Your task to perform on an android device: change the clock display to digital Image 0: 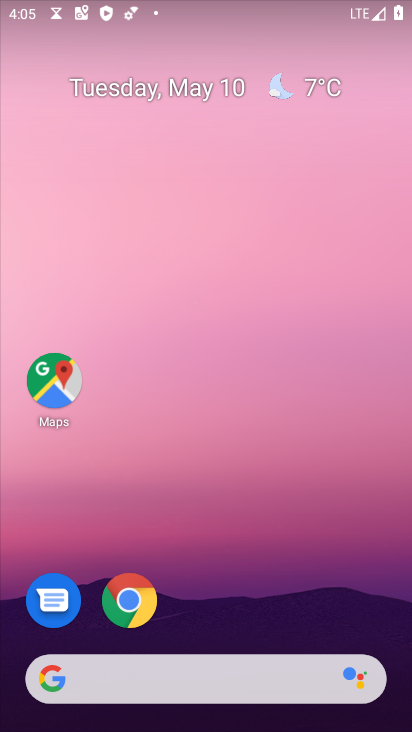
Step 0: drag from (207, 587) to (229, 248)
Your task to perform on an android device: change the clock display to digital Image 1: 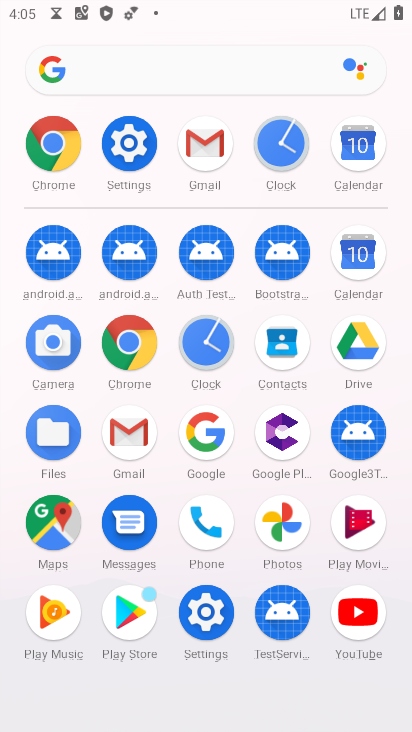
Step 1: click (206, 346)
Your task to perform on an android device: change the clock display to digital Image 2: 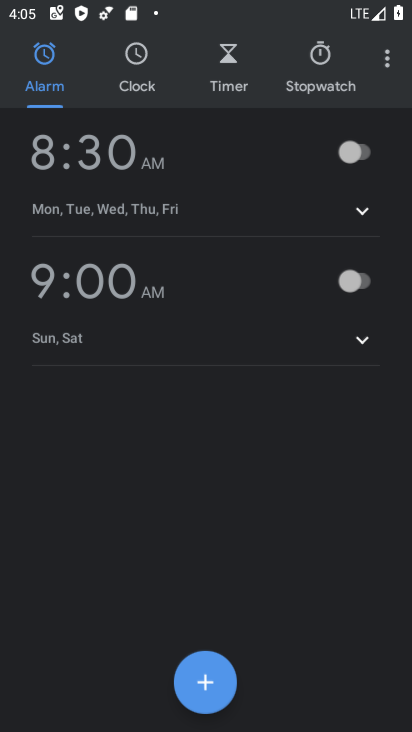
Step 2: click (130, 90)
Your task to perform on an android device: change the clock display to digital Image 3: 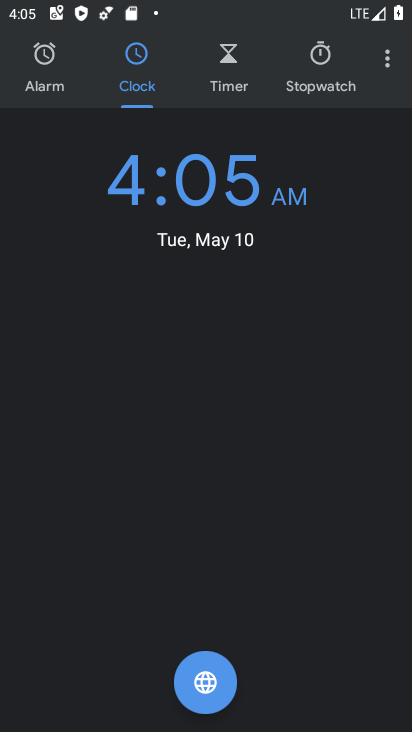
Step 3: click (376, 52)
Your task to perform on an android device: change the clock display to digital Image 4: 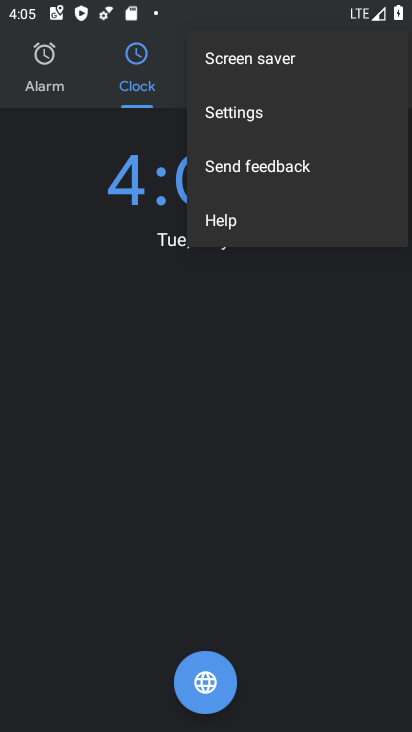
Step 4: click (246, 108)
Your task to perform on an android device: change the clock display to digital Image 5: 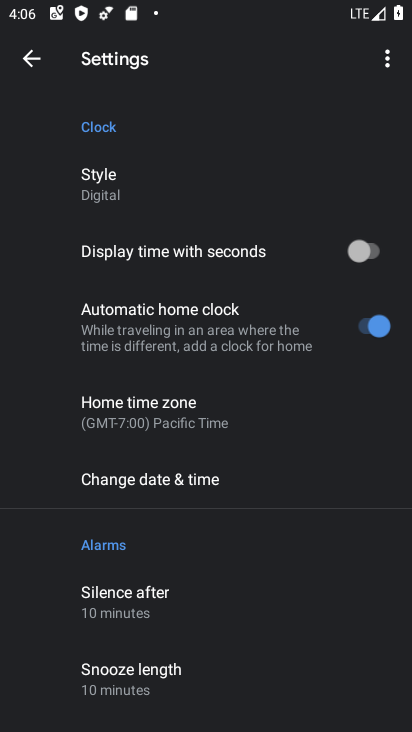
Step 5: click (12, 54)
Your task to perform on an android device: change the clock display to digital Image 6: 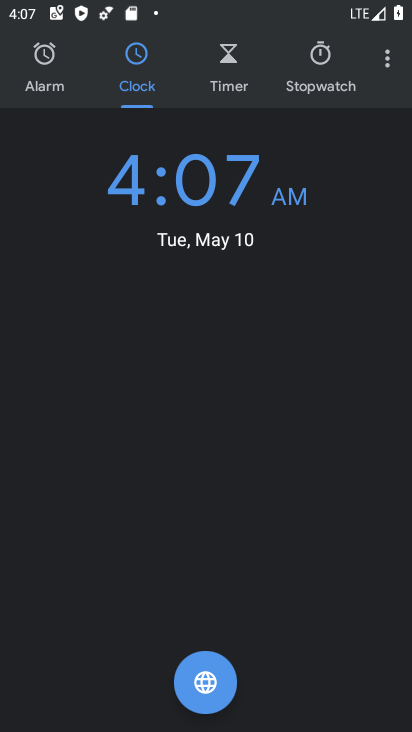
Step 6: press home button
Your task to perform on an android device: change the clock display to digital Image 7: 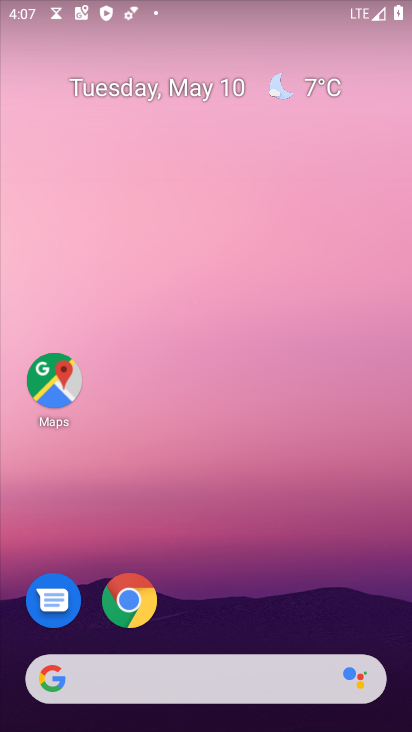
Step 7: click (34, 16)
Your task to perform on an android device: change the clock display to digital Image 8: 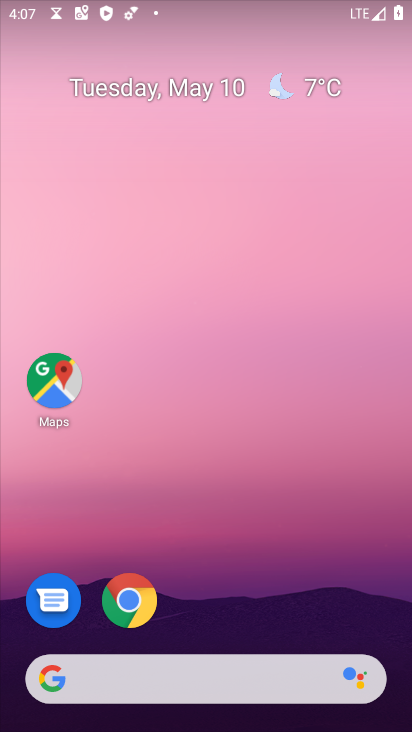
Step 8: task complete